Your task to perform on an android device: Open eBay Image 0: 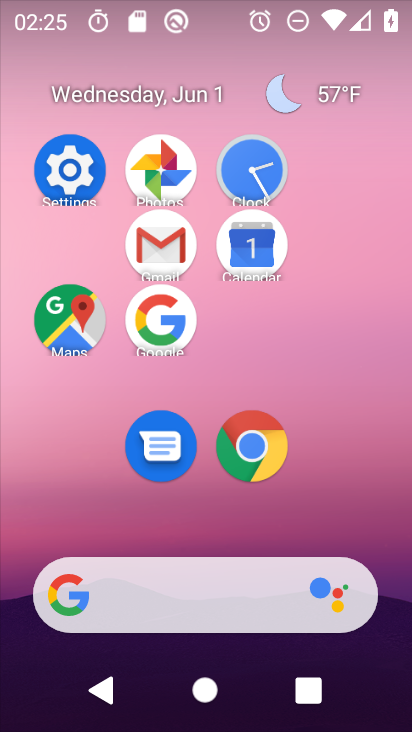
Step 0: click (231, 445)
Your task to perform on an android device: Open eBay Image 1: 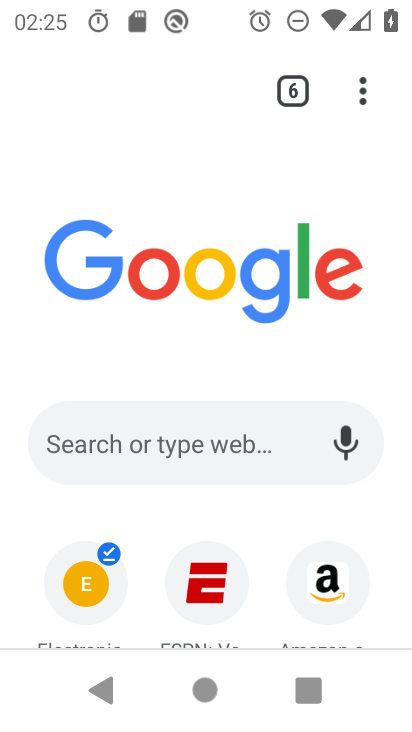
Step 1: click (299, 74)
Your task to perform on an android device: Open eBay Image 2: 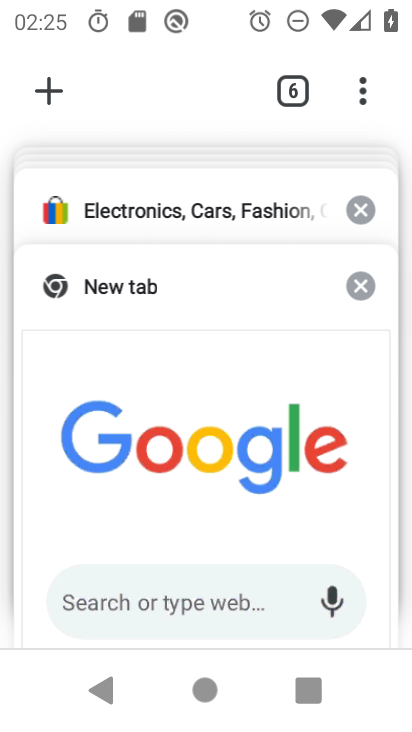
Step 2: click (253, 183)
Your task to perform on an android device: Open eBay Image 3: 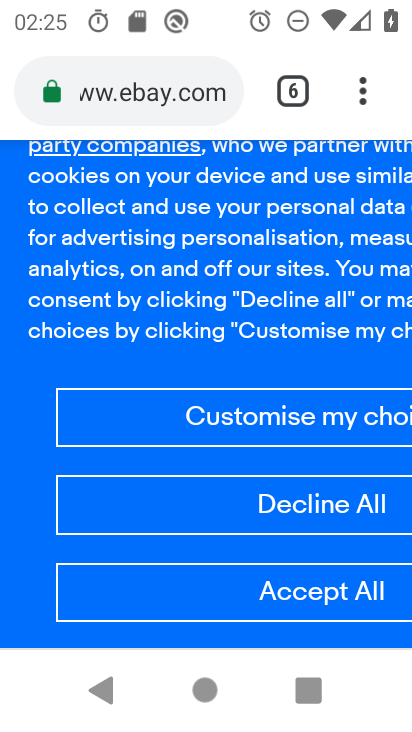
Step 3: task complete